Your task to perform on an android device: Go to ESPN.com Image 0: 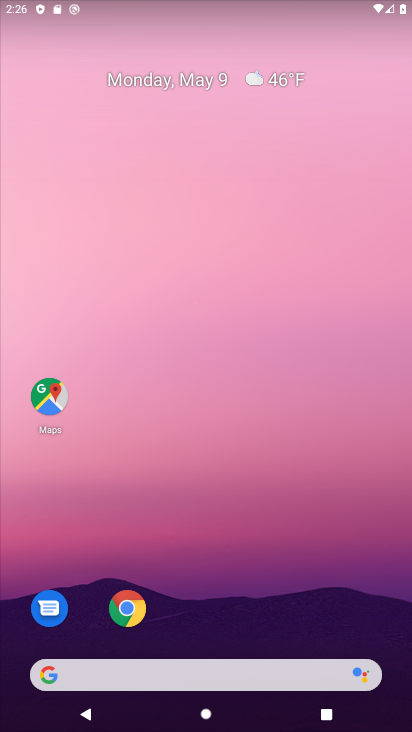
Step 0: click (130, 605)
Your task to perform on an android device: Go to ESPN.com Image 1: 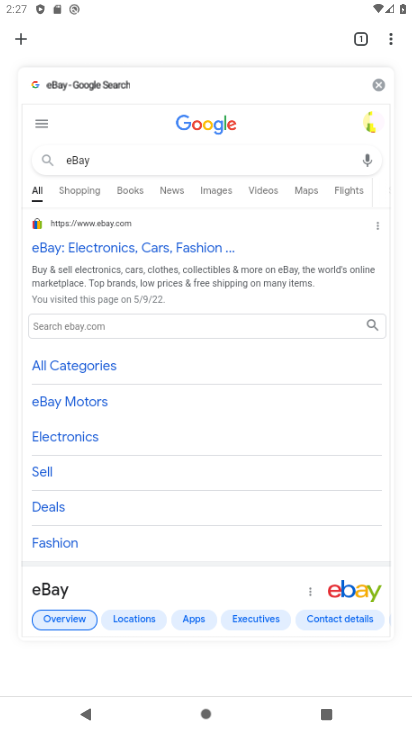
Step 1: click (95, 164)
Your task to perform on an android device: Go to ESPN.com Image 2: 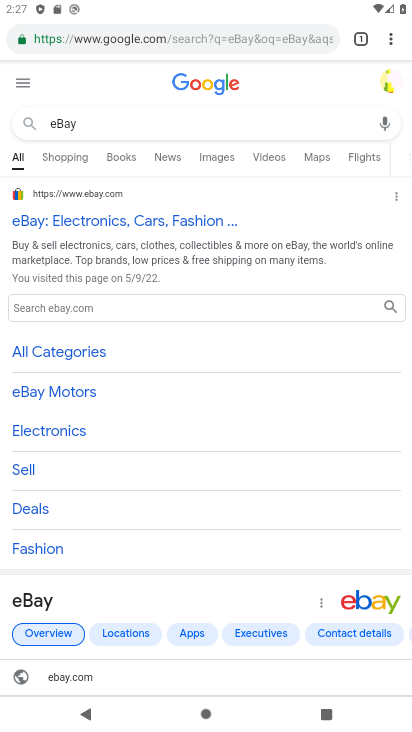
Step 2: click (110, 44)
Your task to perform on an android device: Go to ESPN.com Image 3: 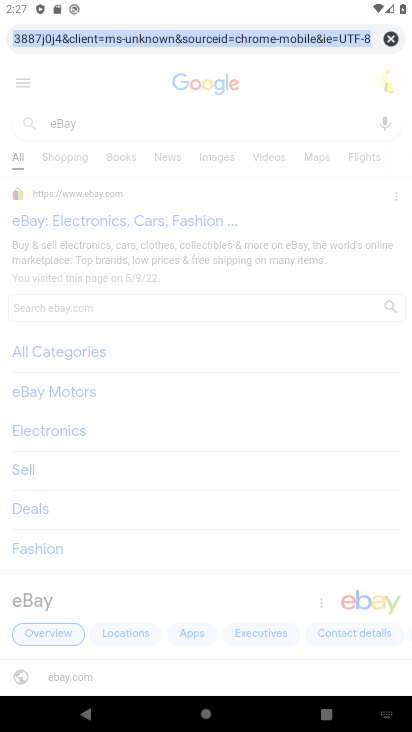
Step 3: type "ESPN.com"
Your task to perform on an android device: Go to ESPN.com Image 4: 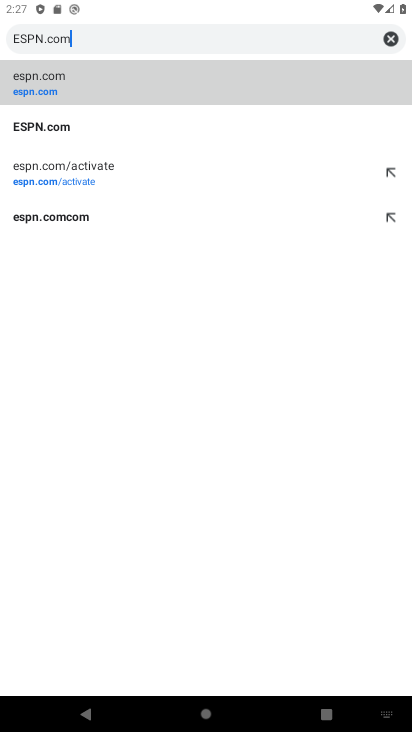
Step 4: click (67, 88)
Your task to perform on an android device: Go to ESPN.com Image 5: 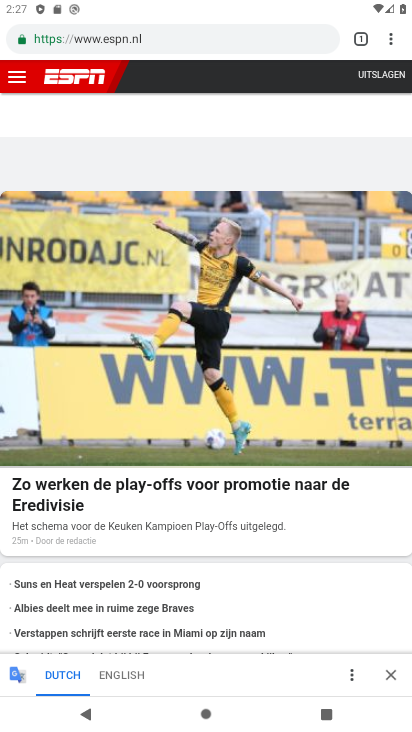
Step 5: task complete